Your task to perform on an android device: toggle data saver in the chrome app Image 0: 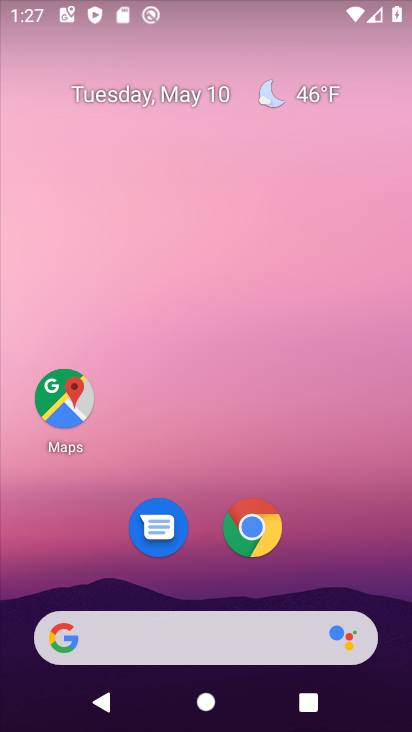
Step 0: click (257, 533)
Your task to perform on an android device: toggle data saver in the chrome app Image 1: 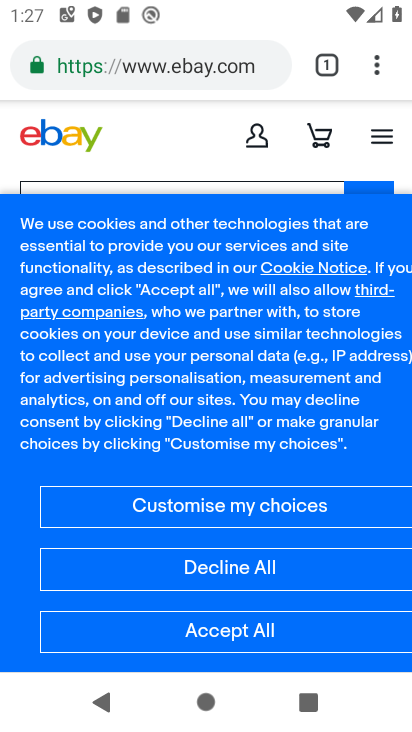
Step 1: drag from (380, 64) to (133, 567)
Your task to perform on an android device: toggle data saver in the chrome app Image 2: 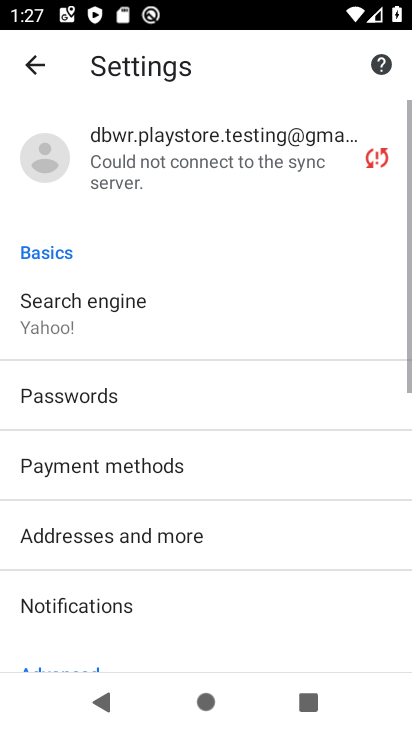
Step 2: drag from (159, 592) to (154, 170)
Your task to perform on an android device: toggle data saver in the chrome app Image 3: 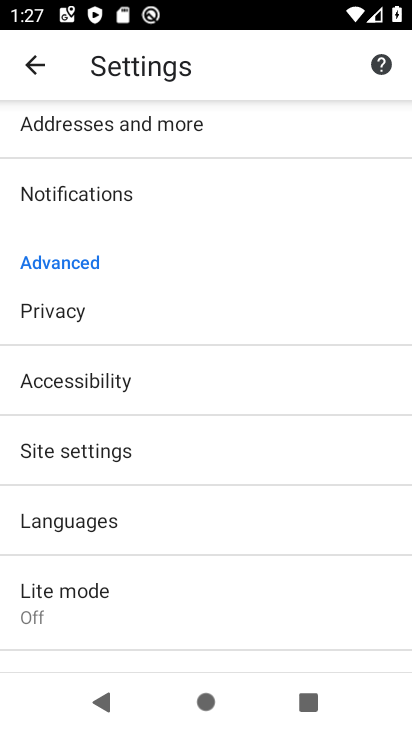
Step 3: click (63, 598)
Your task to perform on an android device: toggle data saver in the chrome app Image 4: 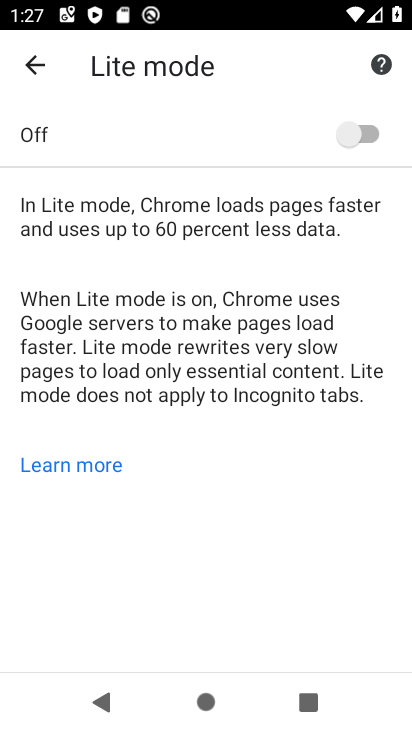
Step 4: click (356, 134)
Your task to perform on an android device: toggle data saver in the chrome app Image 5: 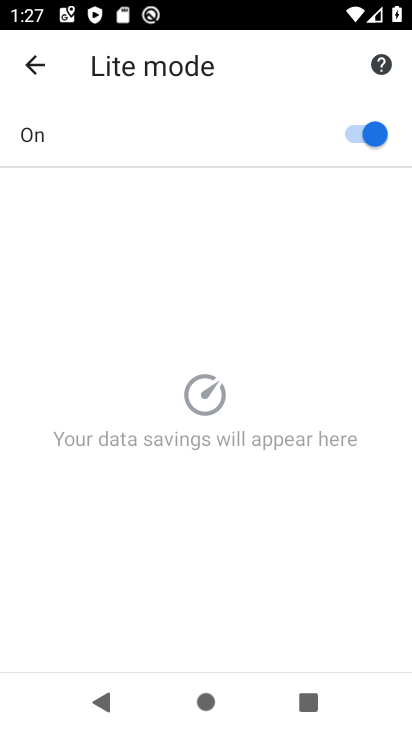
Step 5: task complete